Your task to perform on an android device: Open Maps and search for coffee Image 0: 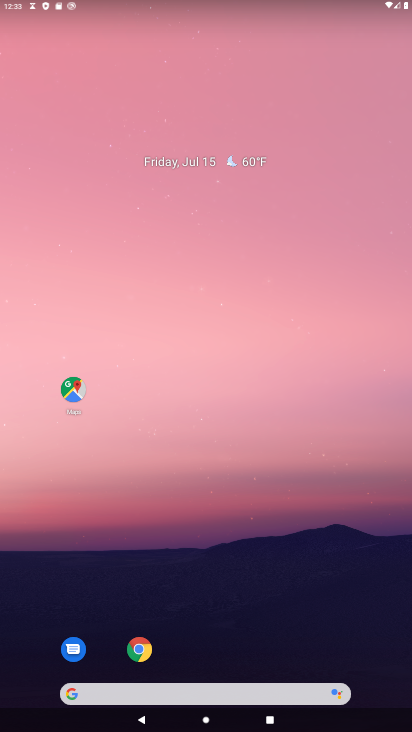
Step 0: click (74, 388)
Your task to perform on an android device: Open Maps and search for coffee Image 1: 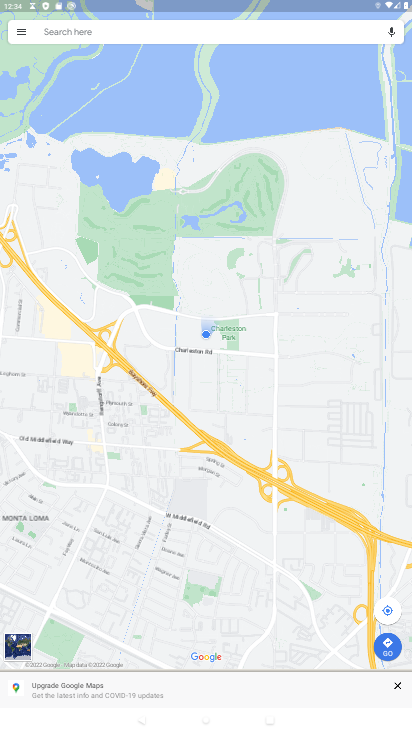
Step 1: click (397, 682)
Your task to perform on an android device: Open Maps and search for coffee Image 2: 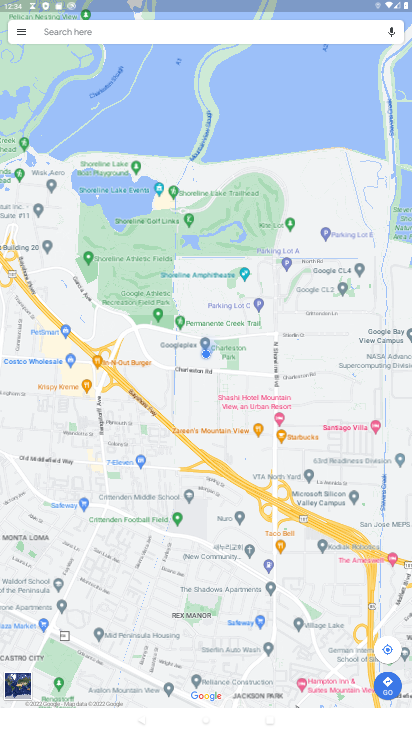
Step 2: click (144, 37)
Your task to perform on an android device: Open Maps and search for coffee Image 3: 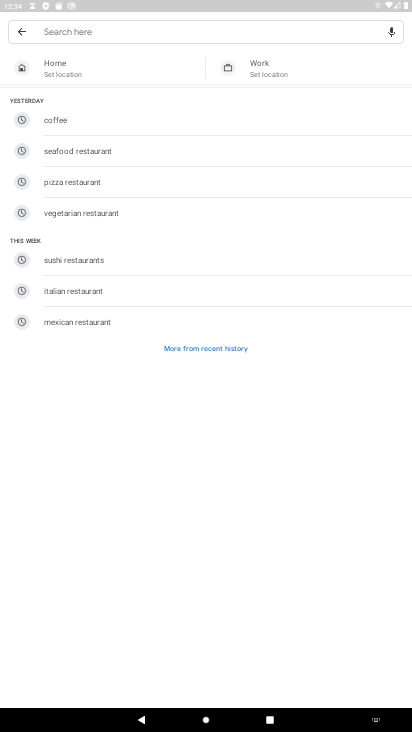
Step 3: type "Coffee"
Your task to perform on an android device: Open Maps and search for coffee Image 4: 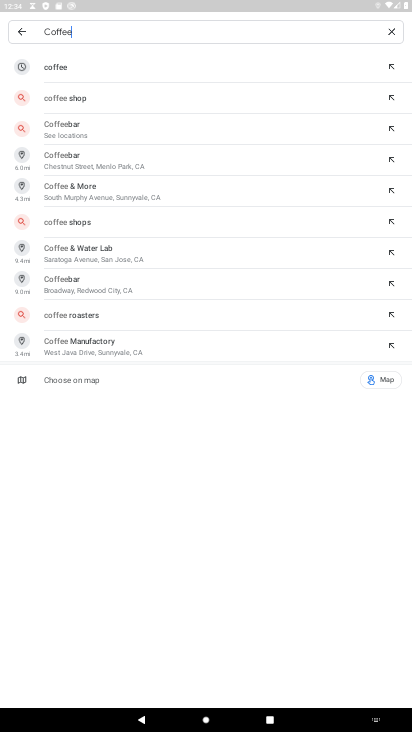
Step 4: click (110, 66)
Your task to perform on an android device: Open Maps and search for coffee Image 5: 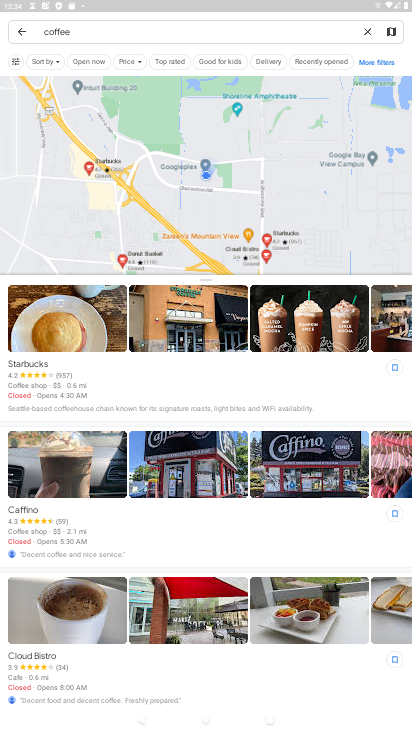
Step 5: task complete